Your task to perform on an android device: Check the settings for the Google Play Music app Image 0: 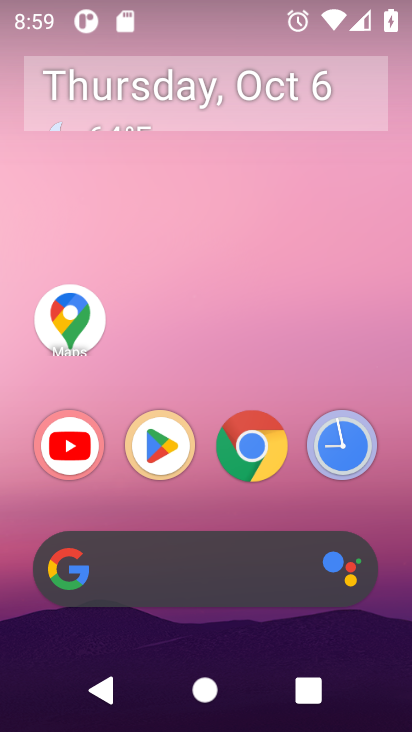
Step 0: drag from (200, 515) to (207, 25)
Your task to perform on an android device: Check the settings for the Google Play Music app Image 1: 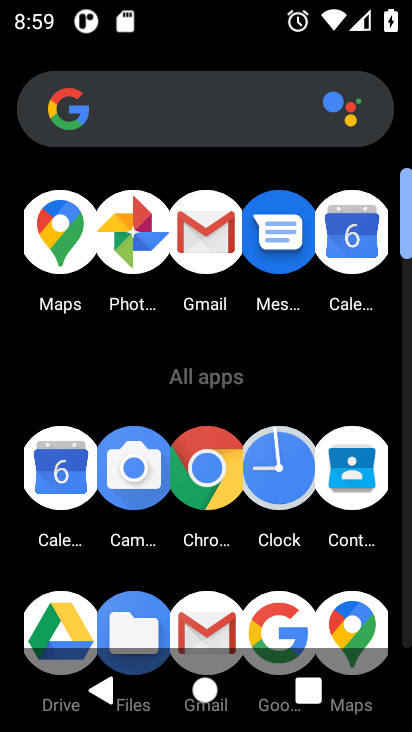
Step 1: drag from (227, 533) to (250, 209)
Your task to perform on an android device: Check the settings for the Google Play Music app Image 2: 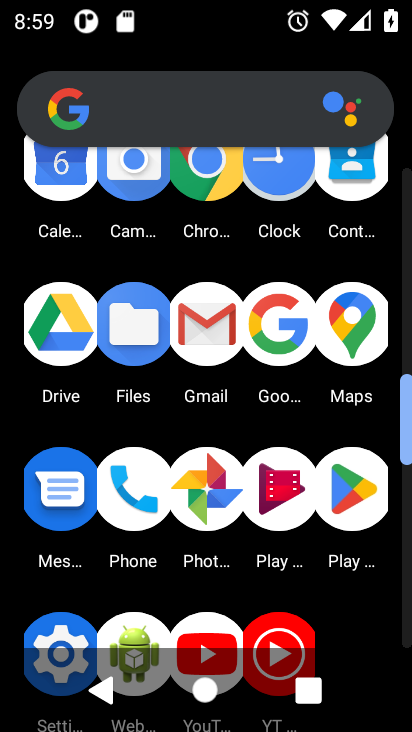
Step 2: click (405, 491)
Your task to perform on an android device: Check the settings for the Google Play Music app Image 3: 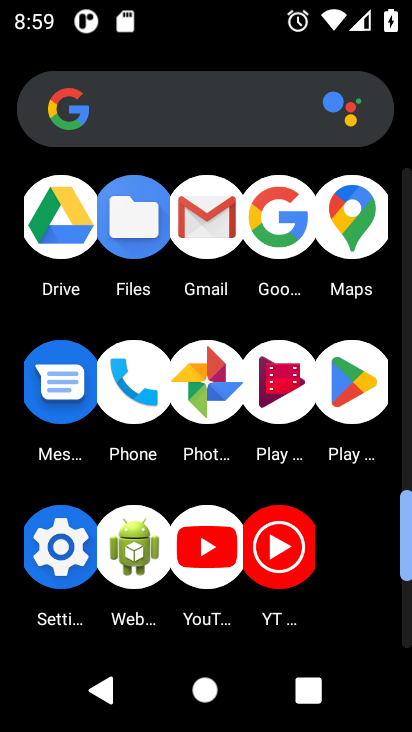
Step 3: click (405, 636)
Your task to perform on an android device: Check the settings for the Google Play Music app Image 4: 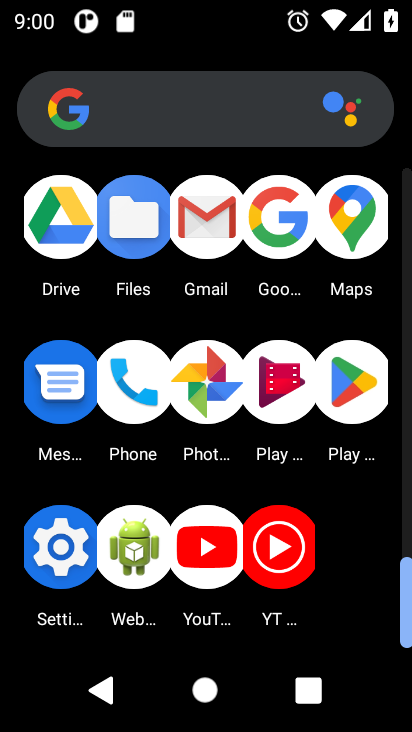
Step 4: task complete